Your task to perform on an android device: Go to internet settings Image 0: 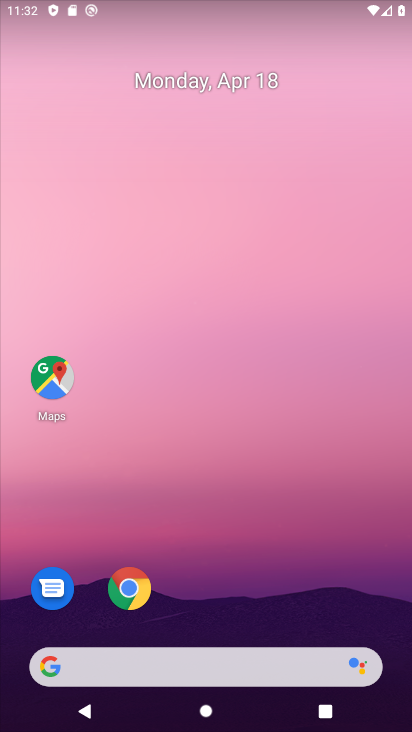
Step 0: drag from (325, 567) to (190, 23)
Your task to perform on an android device: Go to internet settings Image 1: 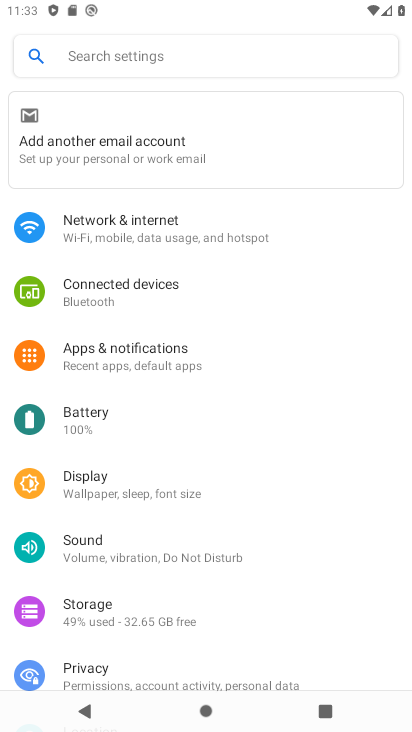
Step 1: click (198, 233)
Your task to perform on an android device: Go to internet settings Image 2: 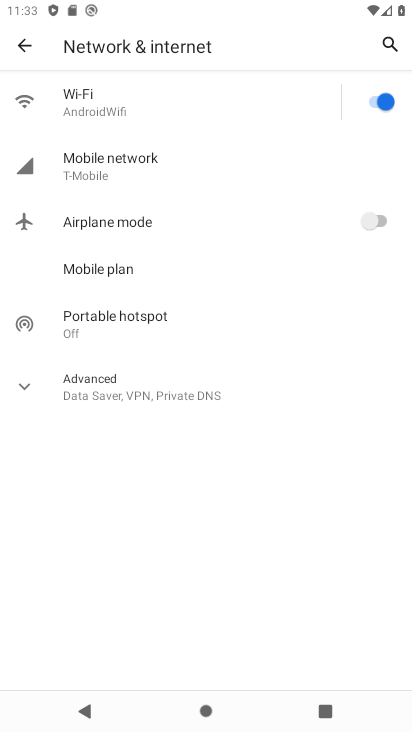
Step 2: task complete